Your task to perform on an android device: turn off location Image 0: 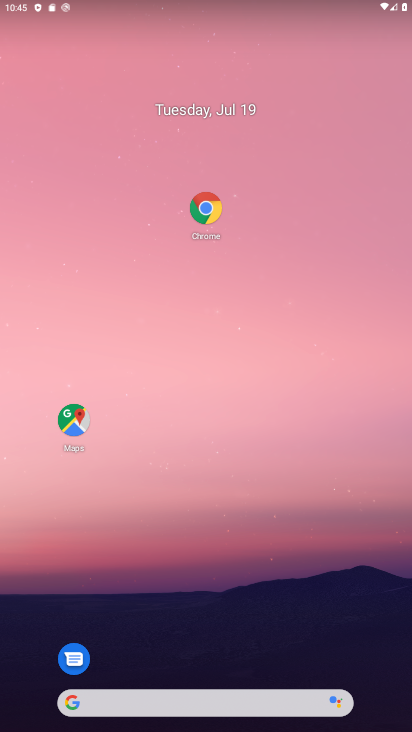
Step 0: drag from (233, 649) to (368, 83)
Your task to perform on an android device: turn off location Image 1: 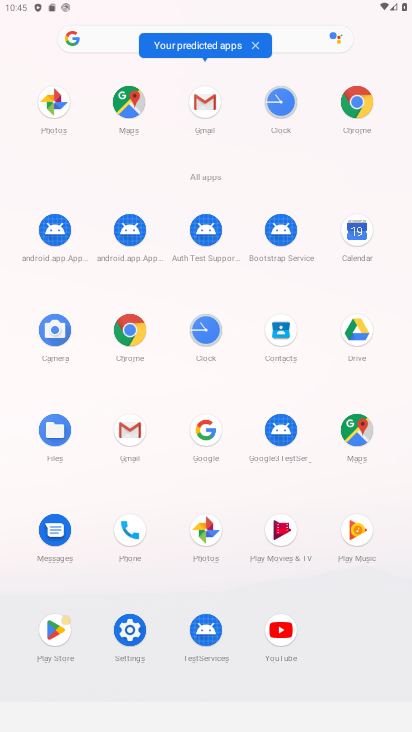
Step 1: click (137, 629)
Your task to perform on an android device: turn off location Image 2: 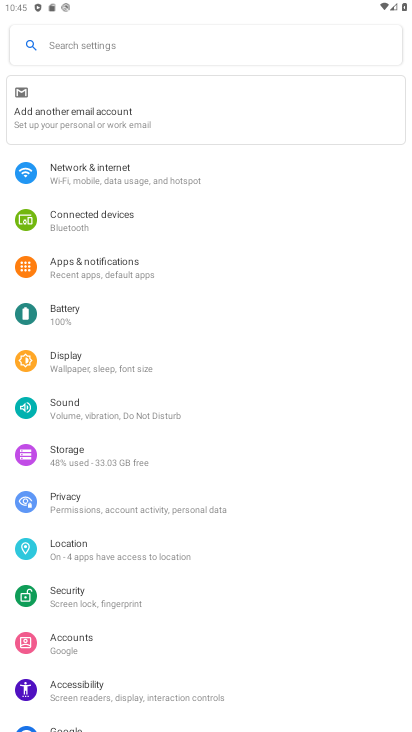
Step 2: click (107, 549)
Your task to perform on an android device: turn off location Image 3: 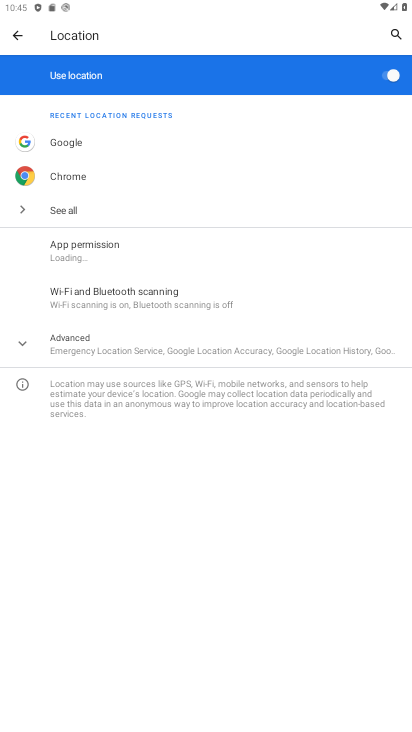
Step 3: click (390, 77)
Your task to perform on an android device: turn off location Image 4: 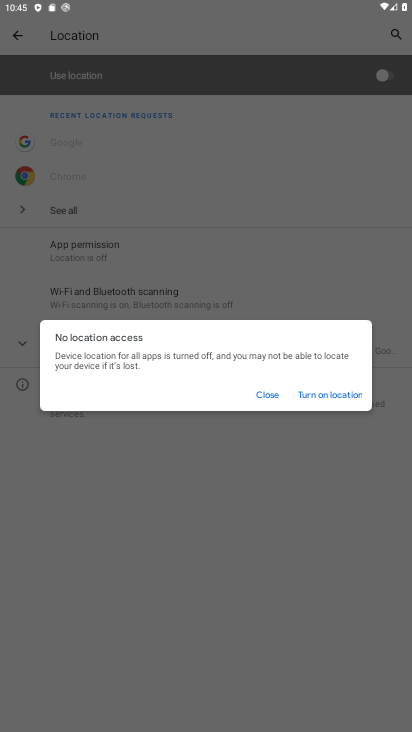
Step 4: task complete